Your task to perform on an android device: set an alarm Image 0: 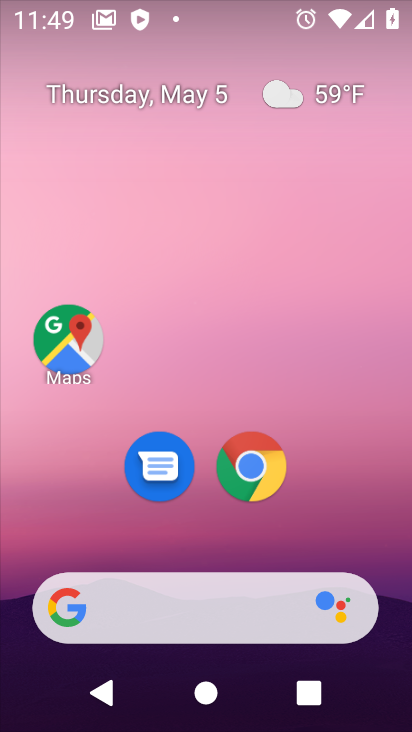
Step 0: drag from (193, 403) to (196, 156)
Your task to perform on an android device: set an alarm Image 1: 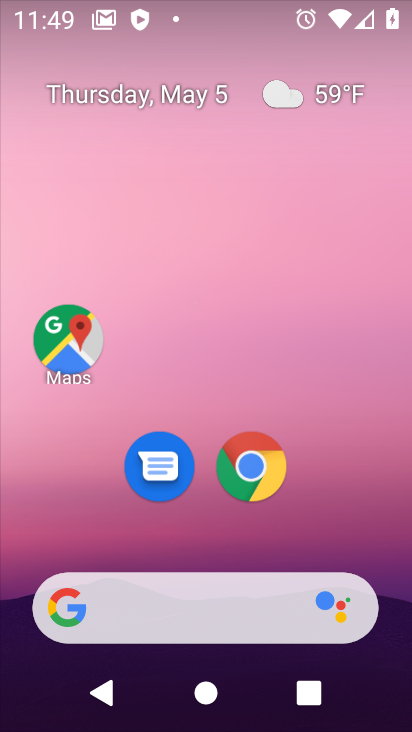
Step 1: drag from (206, 562) to (209, 178)
Your task to perform on an android device: set an alarm Image 2: 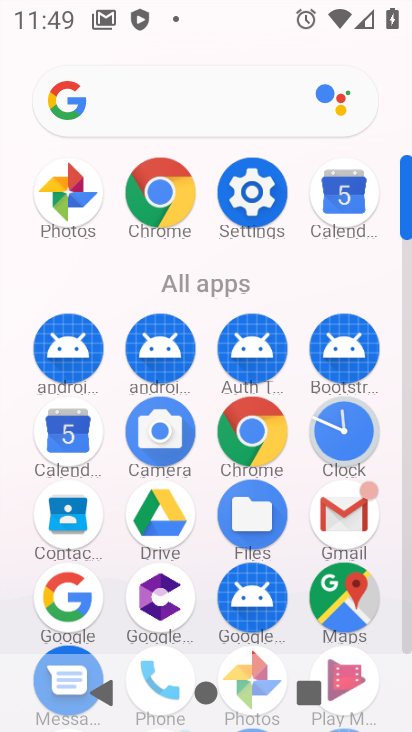
Step 2: click (338, 436)
Your task to perform on an android device: set an alarm Image 3: 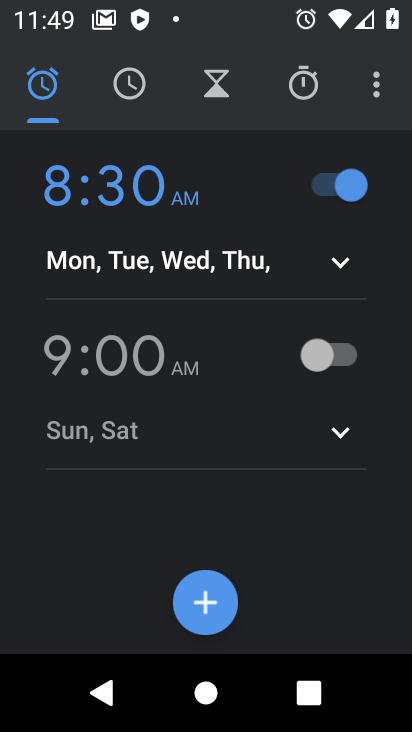
Step 3: task complete